Your task to perform on an android device: Open the map Image 0: 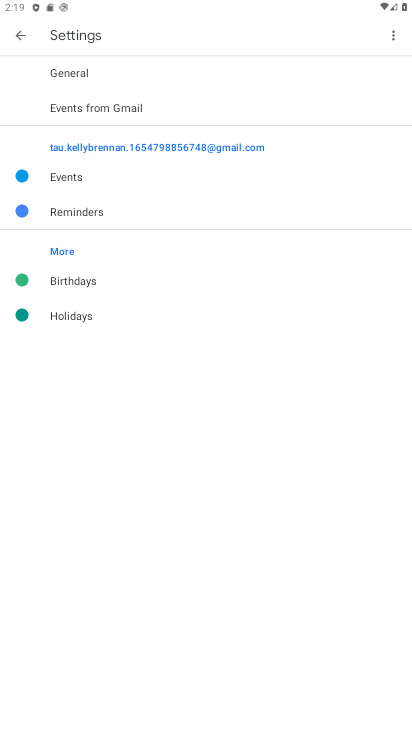
Step 0: press home button
Your task to perform on an android device: Open the map Image 1: 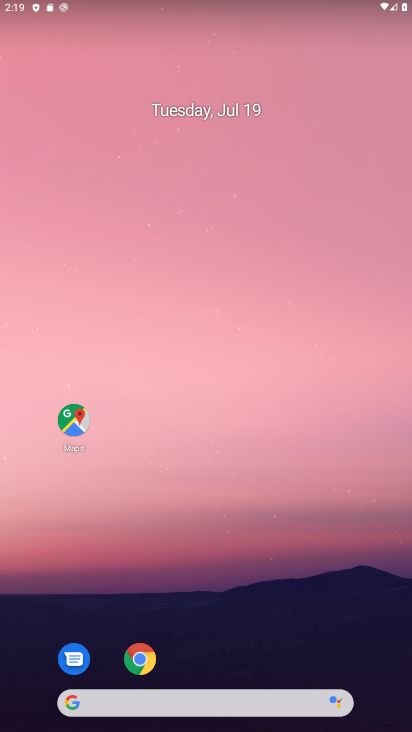
Step 1: drag from (343, 644) to (264, 192)
Your task to perform on an android device: Open the map Image 2: 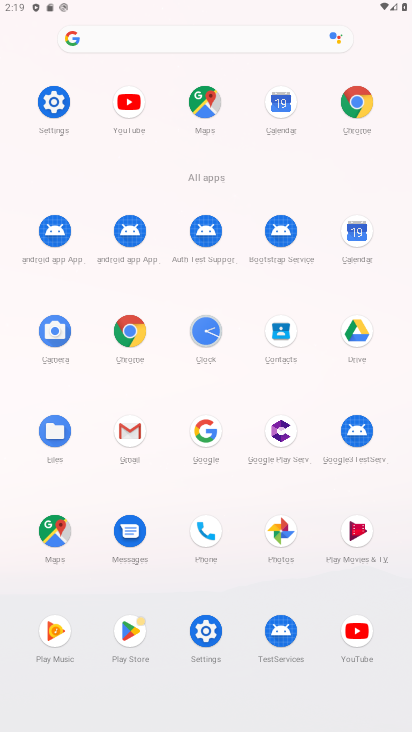
Step 2: click (214, 108)
Your task to perform on an android device: Open the map Image 3: 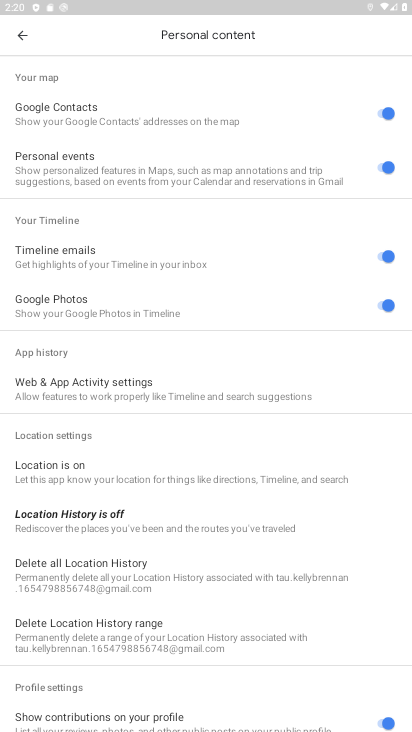
Step 3: click (20, 40)
Your task to perform on an android device: Open the map Image 4: 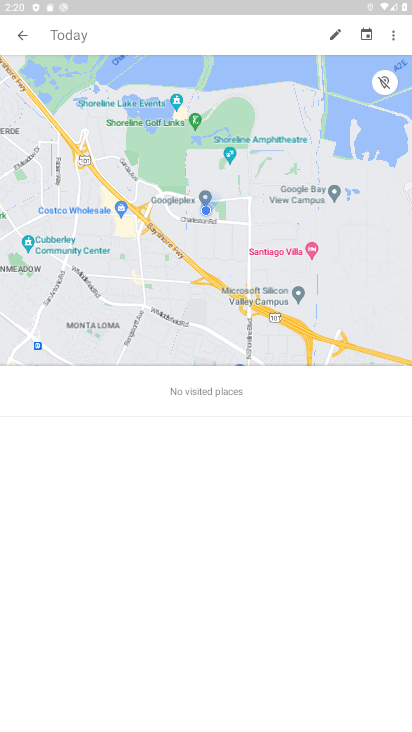
Step 4: task complete